Your task to perform on an android device: set an alarm Image 0: 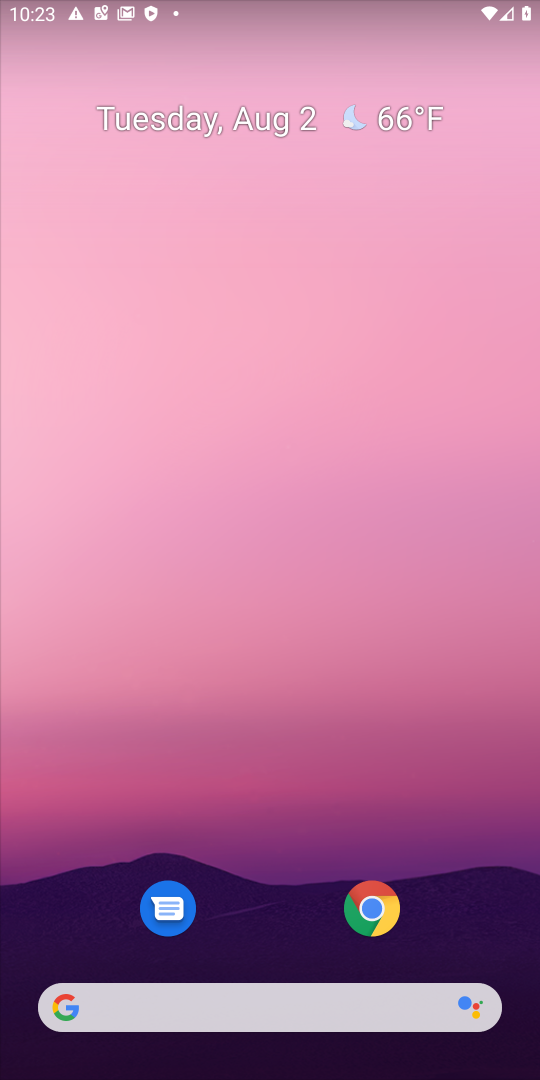
Step 0: drag from (316, 640) to (321, 150)
Your task to perform on an android device: set an alarm Image 1: 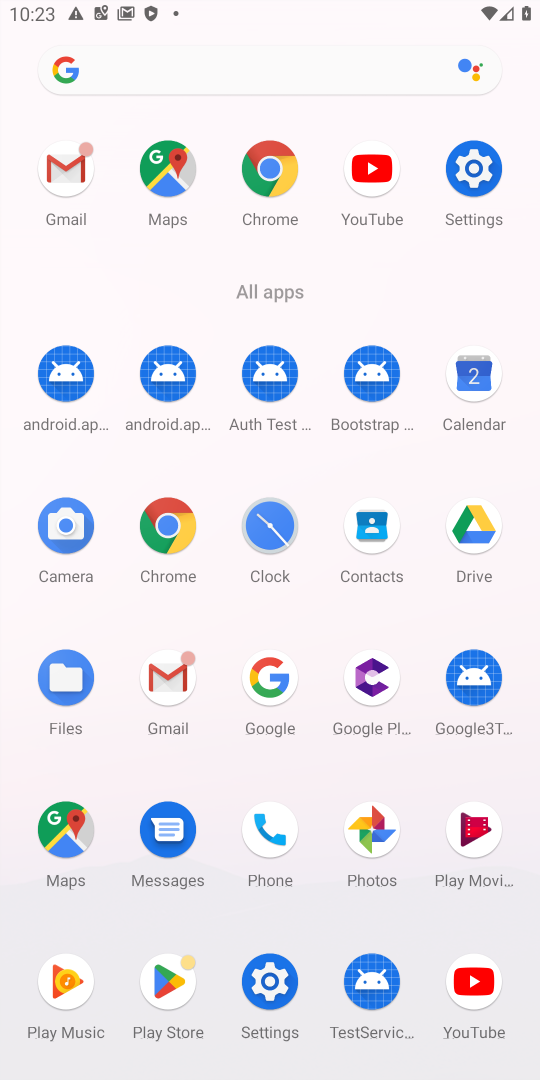
Step 1: click (275, 540)
Your task to perform on an android device: set an alarm Image 2: 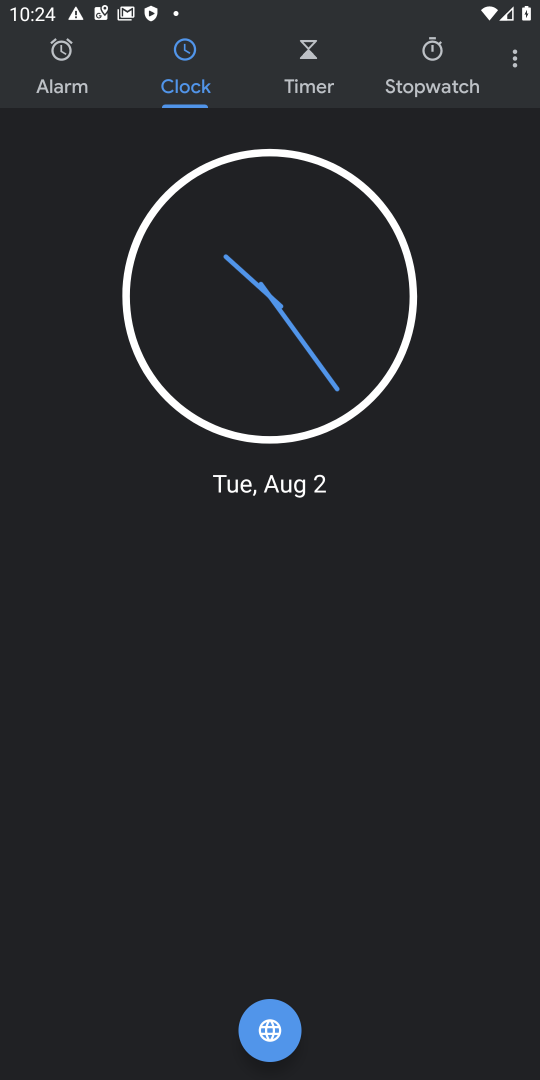
Step 2: click (82, 77)
Your task to perform on an android device: set an alarm Image 3: 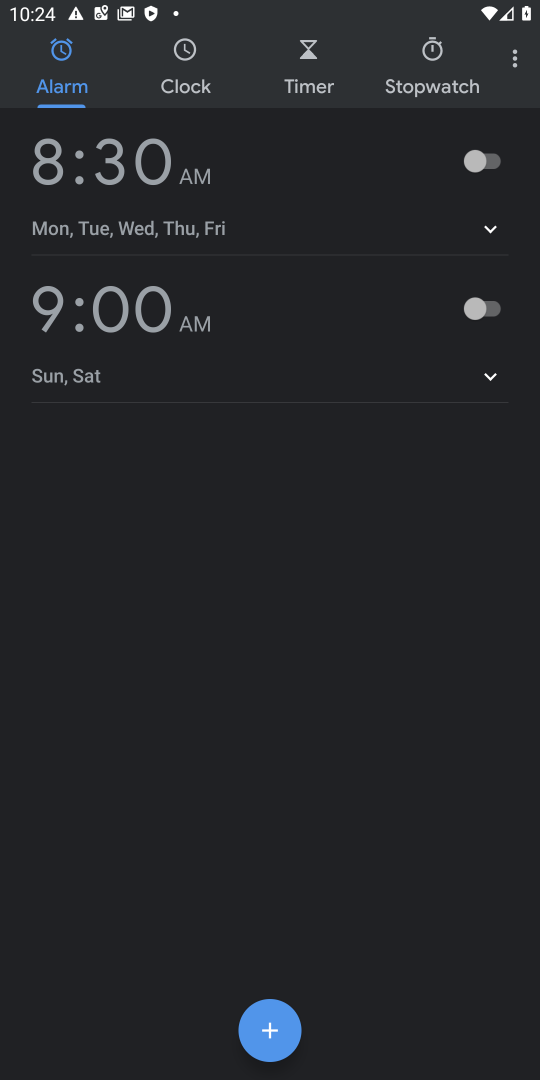
Step 3: click (468, 318)
Your task to perform on an android device: set an alarm Image 4: 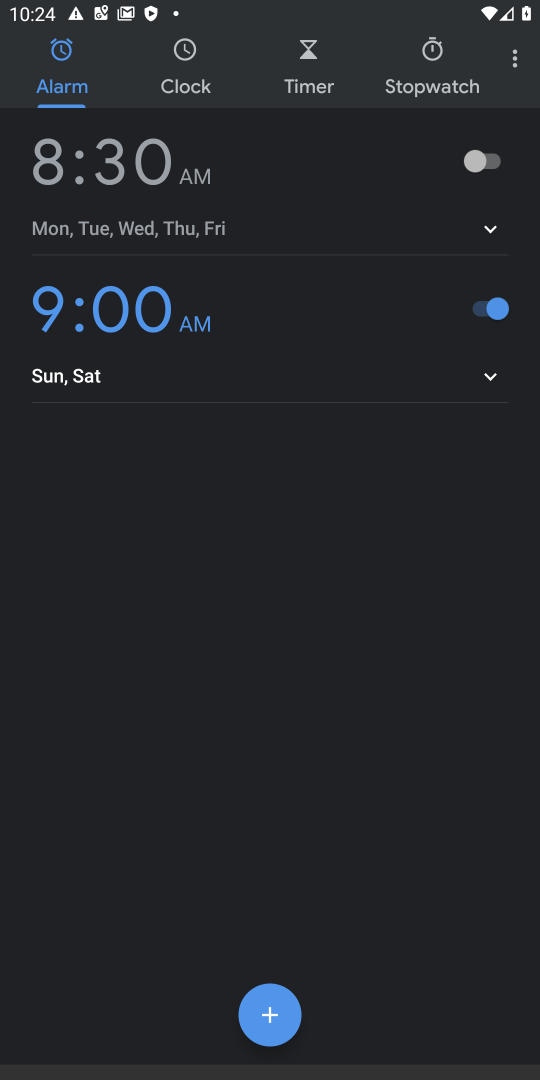
Step 4: task complete